Your task to perform on an android device: Open Google Chrome Image 0: 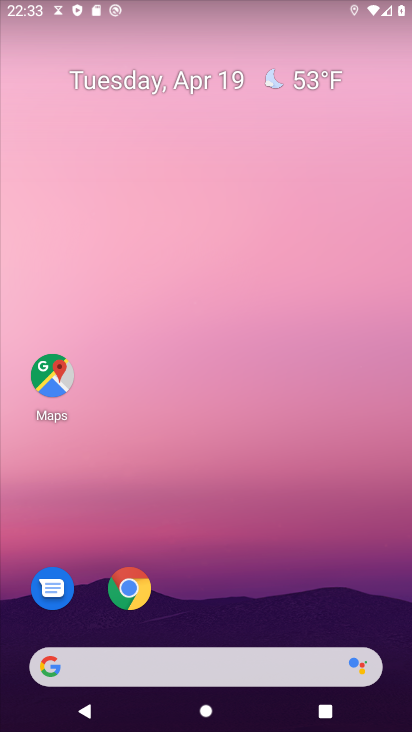
Step 0: click (128, 590)
Your task to perform on an android device: Open Google Chrome Image 1: 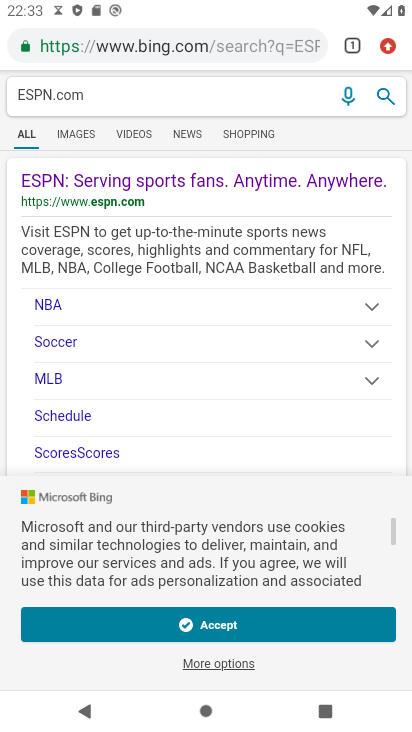
Step 1: task complete